Your task to perform on an android device: Clear the cart on target.com. Search for logitech g502 on target.com, select the first entry, and add it to the cart. Image 0: 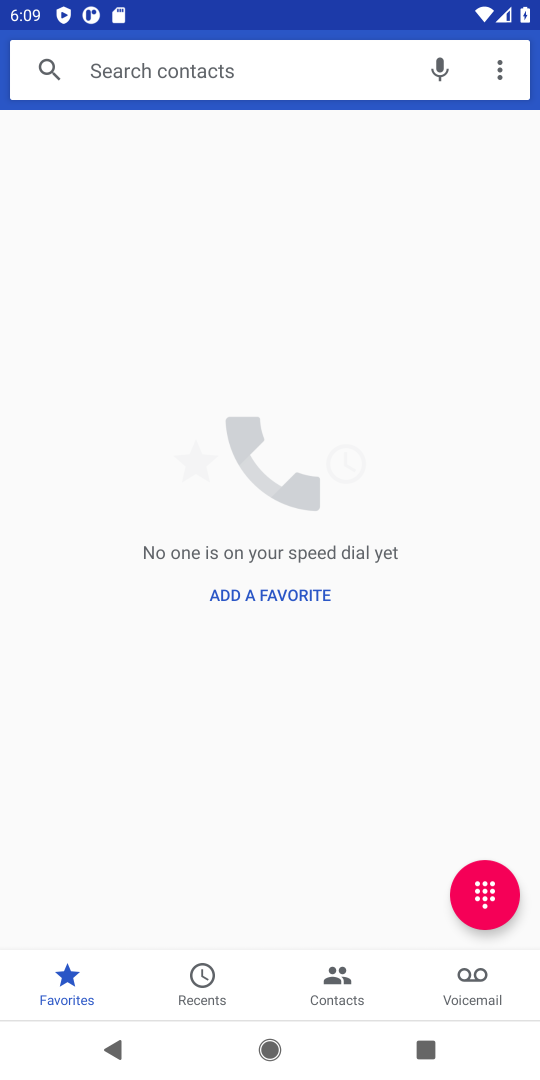
Step 0: press home button
Your task to perform on an android device: Clear the cart on target.com. Search for logitech g502 on target.com, select the first entry, and add it to the cart. Image 1: 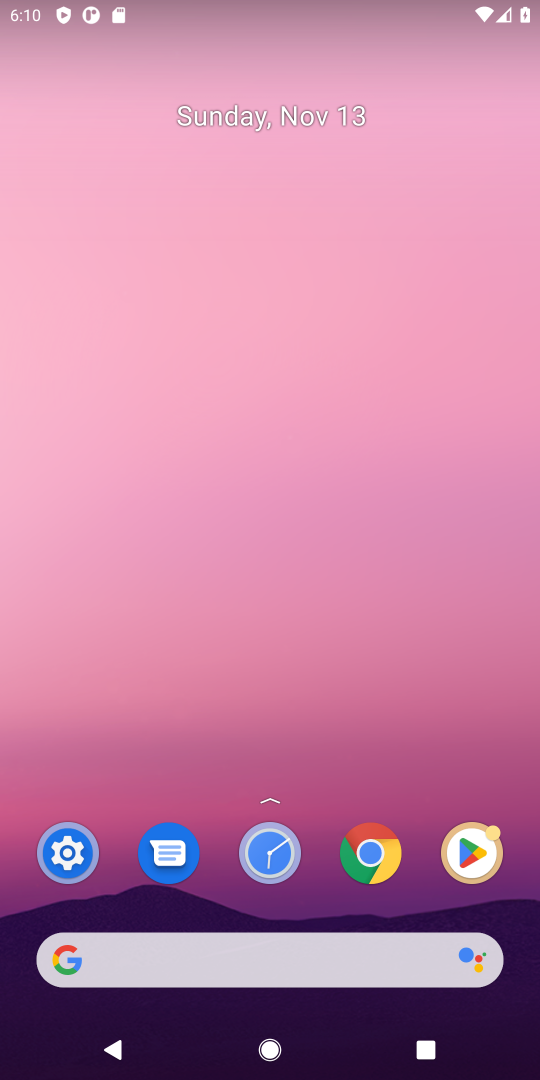
Step 1: click (98, 959)
Your task to perform on an android device: Clear the cart on target.com. Search for logitech g502 on target.com, select the first entry, and add it to the cart. Image 2: 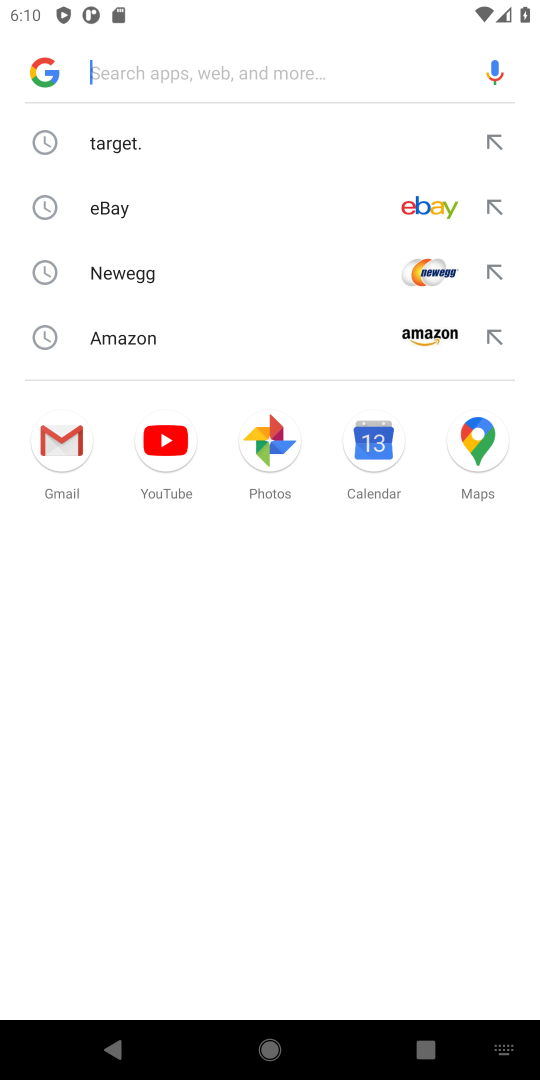
Step 2: type "target.com"
Your task to perform on an android device: Clear the cart on target.com. Search for logitech g502 on target.com, select the first entry, and add it to the cart. Image 3: 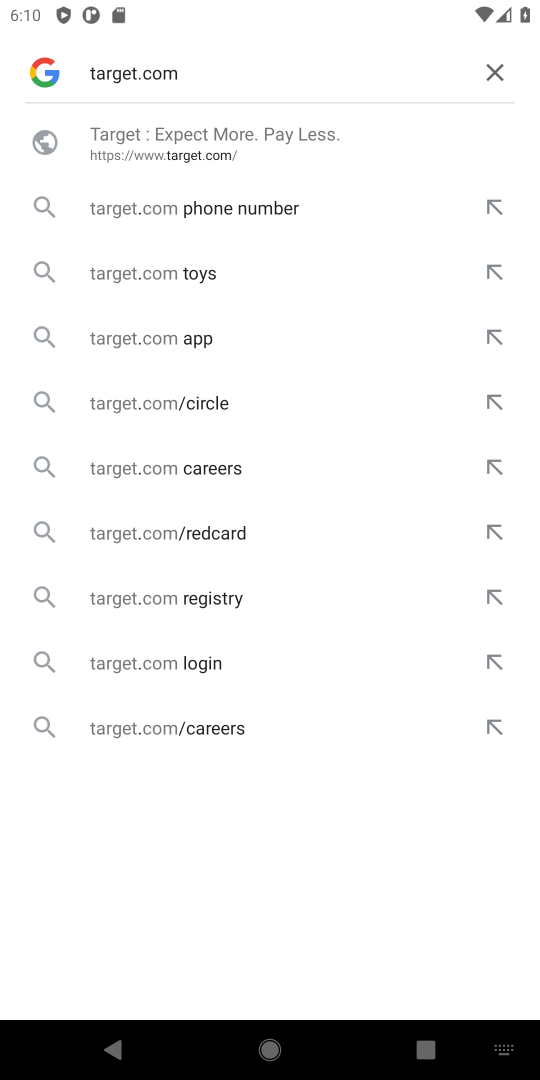
Step 3: press enter
Your task to perform on an android device: Clear the cart on target.com. Search for logitech g502 on target.com, select the first entry, and add it to the cart. Image 4: 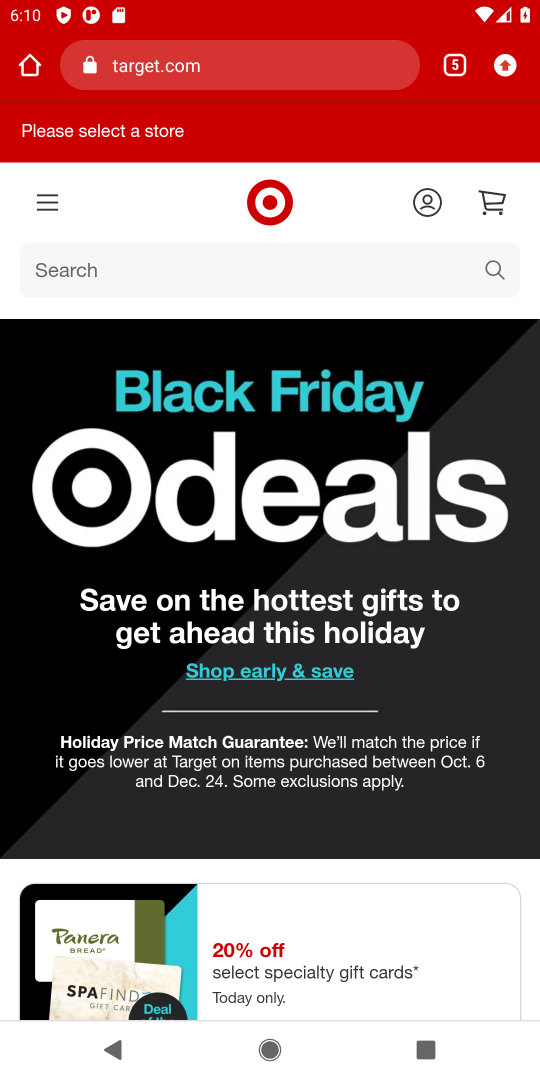
Step 4: click (499, 197)
Your task to perform on an android device: Clear the cart on target.com. Search for logitech g502 on target.com, select the first entry, and add it to the cart. Image 5: 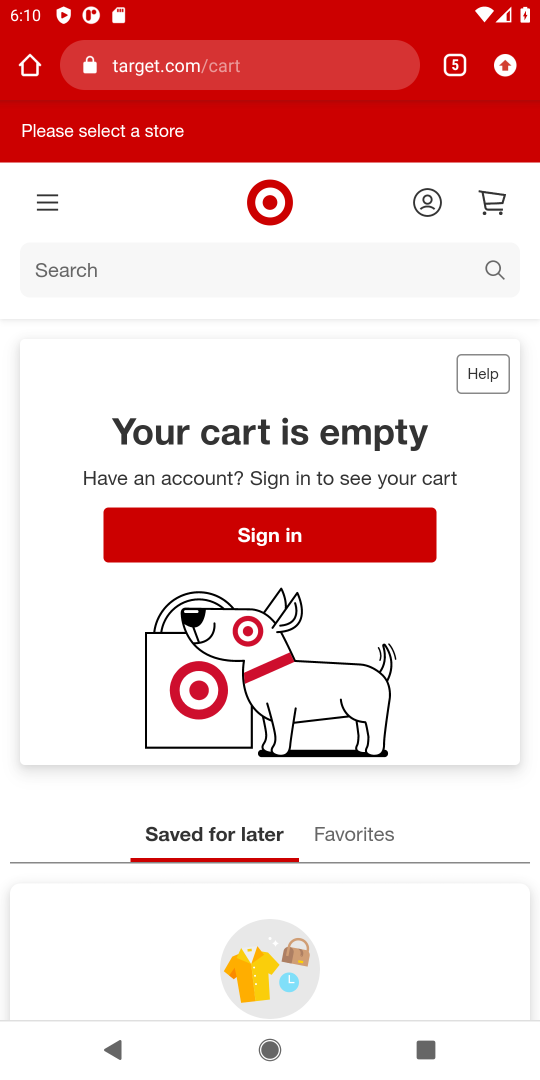
Step 5: click (71, 264)
Your task to perform on an android device: Clear the cart on target.com. Search for logitech g502 on target.com, select the first entry, and add it to the cart. Image 6: 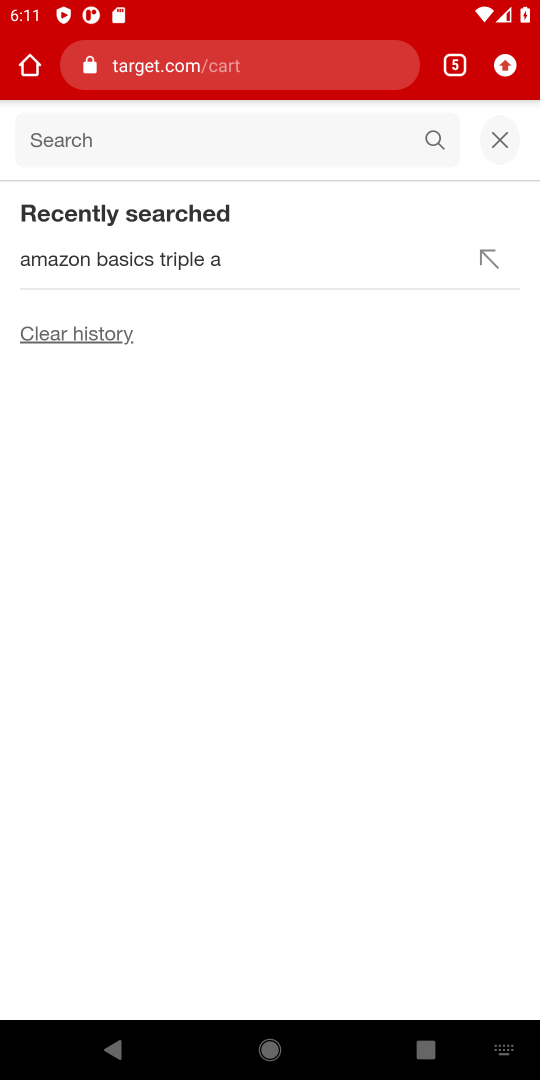
Step 6: type "logitech g502 "
Your task to perform on an android device: Clear the cart on target.com. Search for logitech g502 on target.com, select the first entry, and add it to the cart. Image 7: 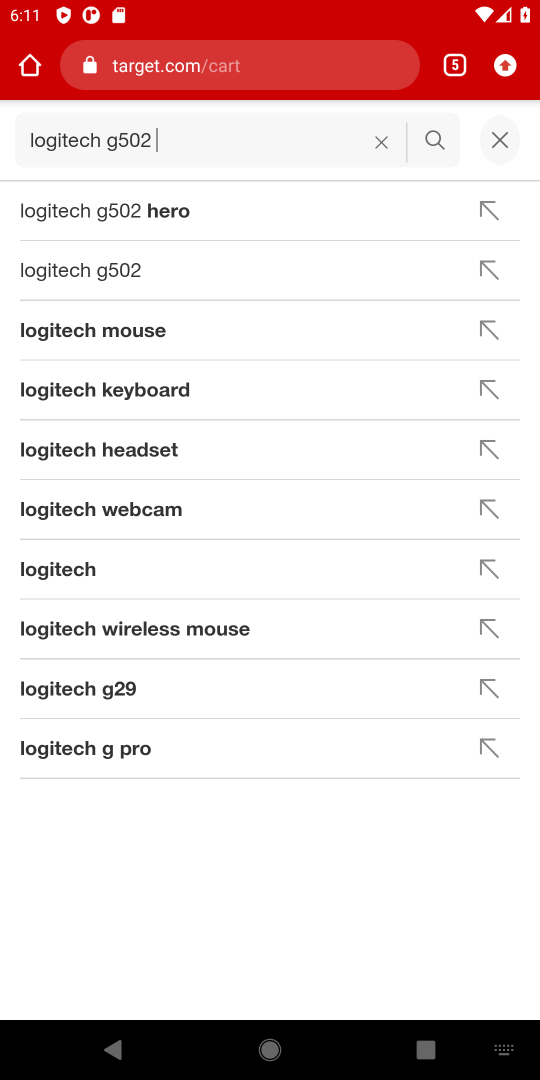
Step 7: press enter
Your task to perform on an android device: Clear the cart on target.com. Search for logitech g502 on target.com, select the first entry, and add it to the cart. Image 8: 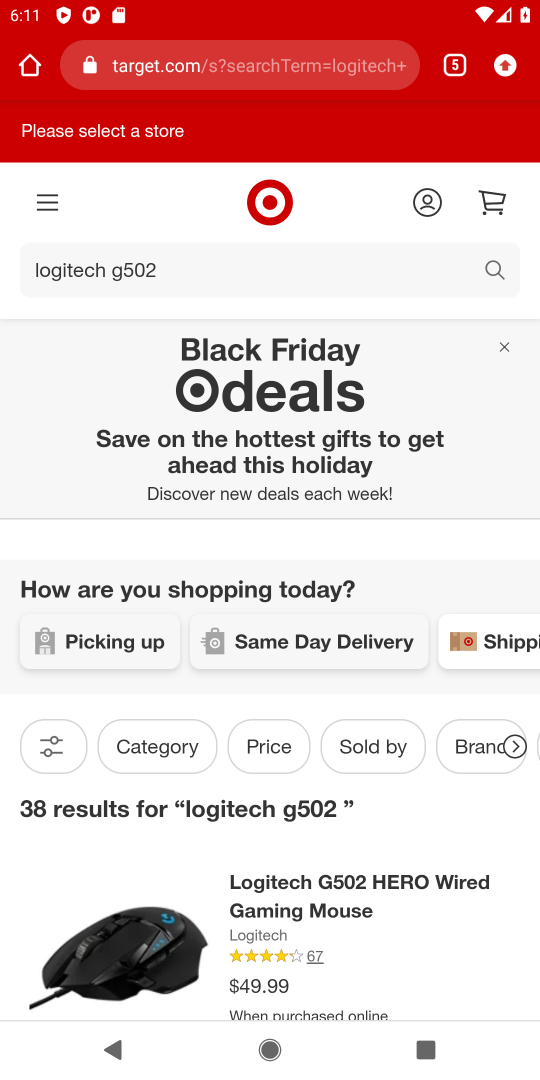
Step 8: drag from (354, 935) to (347, 517)
Your task to perform on an android device: Clear the cart on target.com. Search for logitech g502 on target.com, select the first entry, and add it to the cart. Image 9: 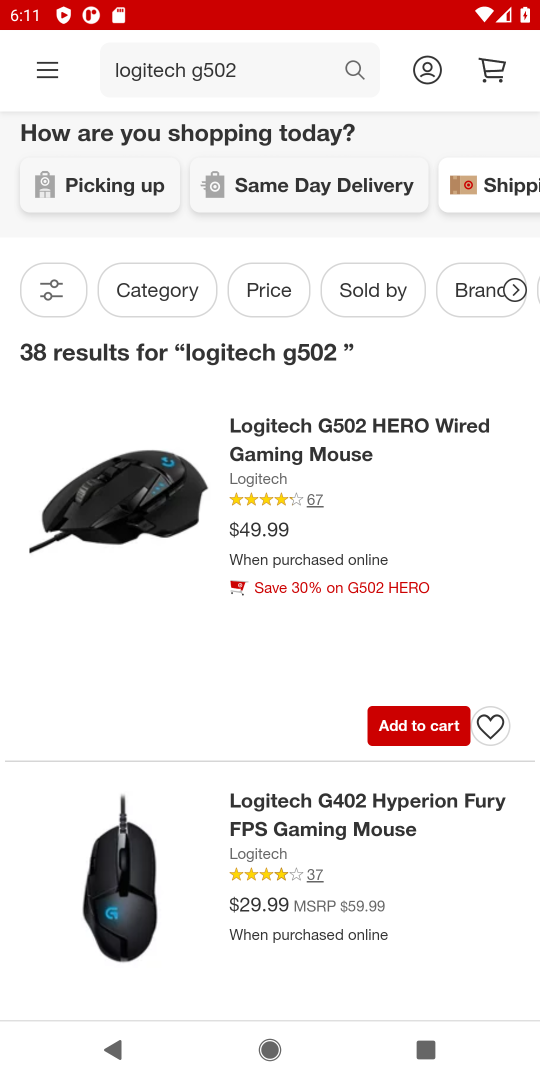
Step 9: drag from (370, 903) to (373, 553)
Your task to perform on an android device: Clear the cart on target.com. Search for logitech g502 on target.com, select the first entry, and add it to the cart. Image 10: 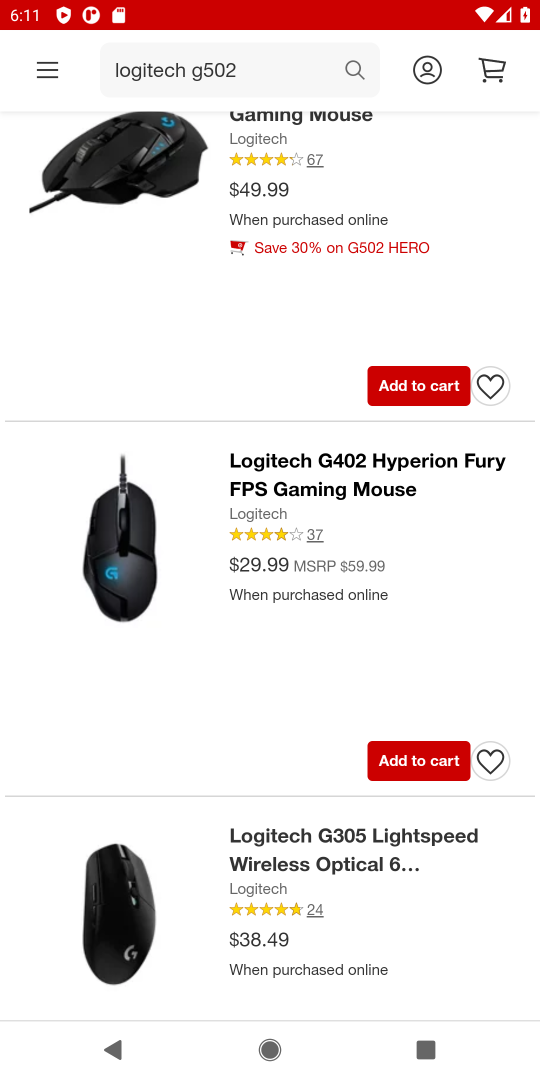
Step 10: click (411, 380)
Your task to perform on an android device: Clear the cart on target.com. Search for logitech g502 on target.com, select the first entry, and add it to the cart. Image 11: 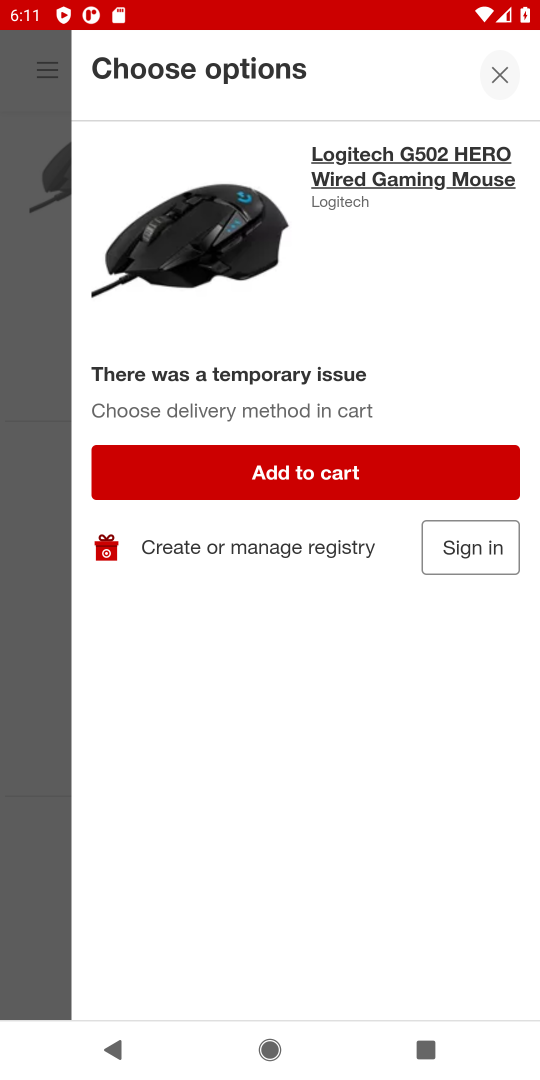
Step 11: click (303, 481)
Your task to perform on an android device: Clear the cart on target.com. Search for logitech g502 on target.com, select the first entry, and add it to the cart. Image 12: 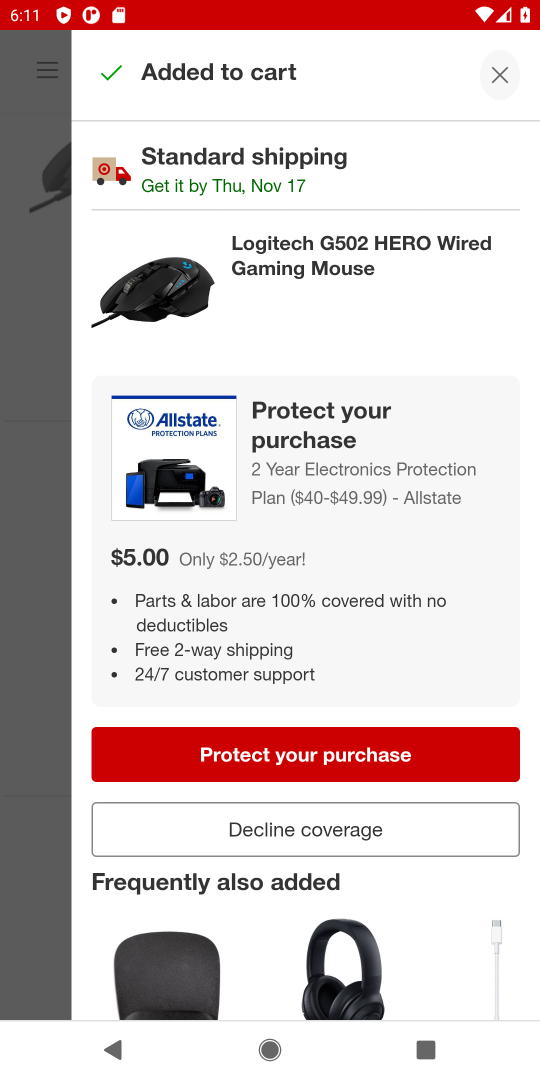
Step 12: task complete